Your task to perform on an android device: Find coffee shops on Maps Image 0: 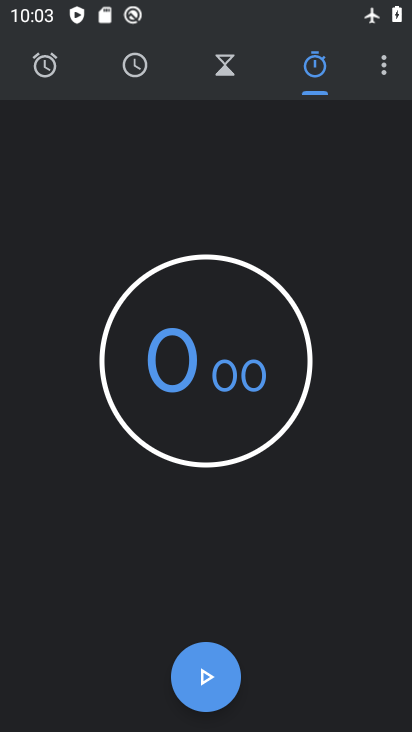
Step 0: press back button
Your task to perform on an android device: Find coffee shops on Maps Image 1: 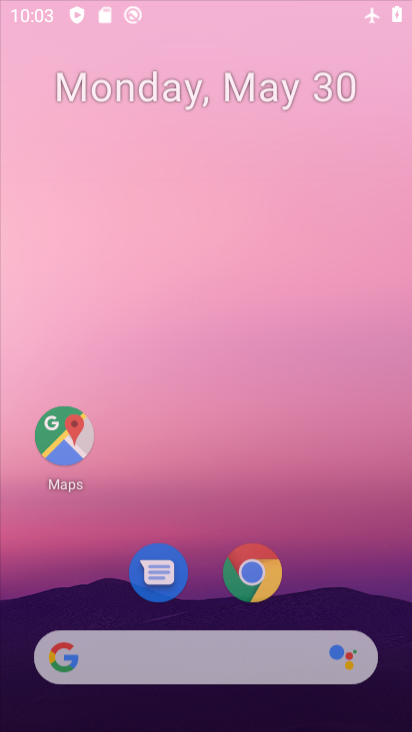
Step 1: press back button
Your task to perform on an android device: Find coffee shops on Maps Image 2: 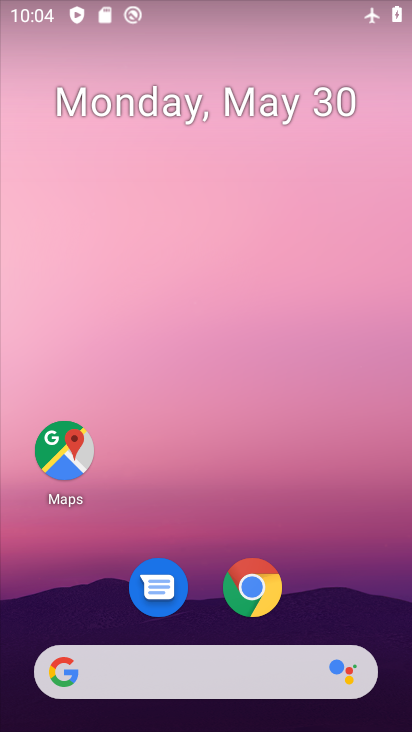
Step 2: drag from (336, 589) to (307, 19)
Your task to perform on an android device: Find coffee shops on Maps Image 3: 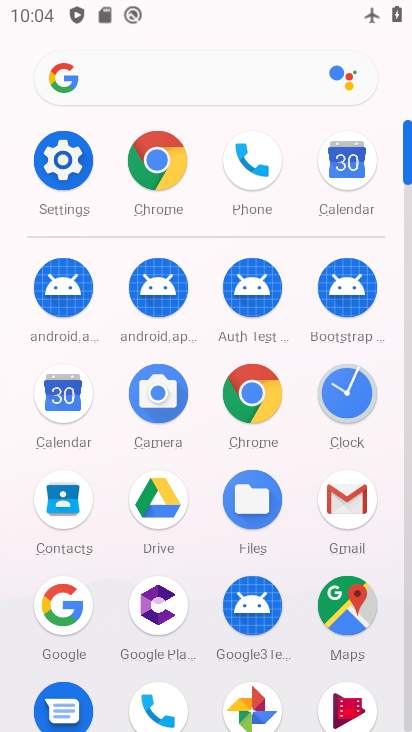
Step 3: drag from (5, 581) to (8, 263)
Your task to perform on an android device: Find coffee shops on Maps Image 4: 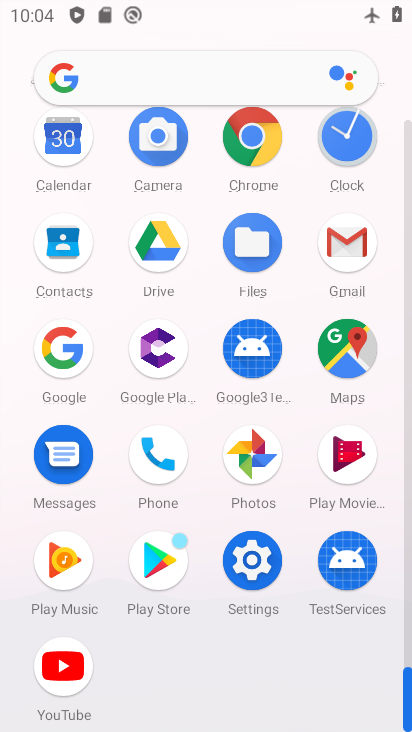
Step 4: click (336, 336)
Your task to perform on an android device: Find coffee shops on Maps Image 5: 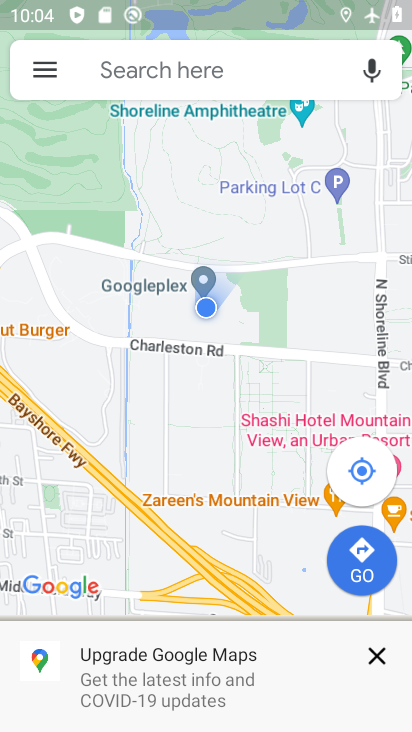
Step 5: click (228, 68)
Your task to perform on an android device: Find coffee shops on Maps Image 6: 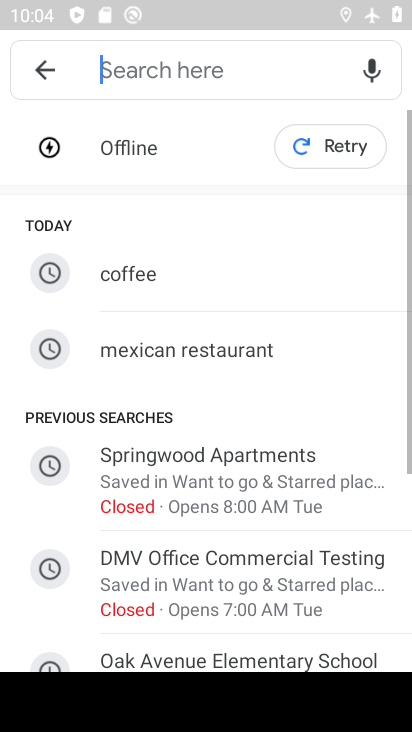
Step 6: click (172, 269)
Your task to perform on an android device: Find coffee shops on Maps Image 7: 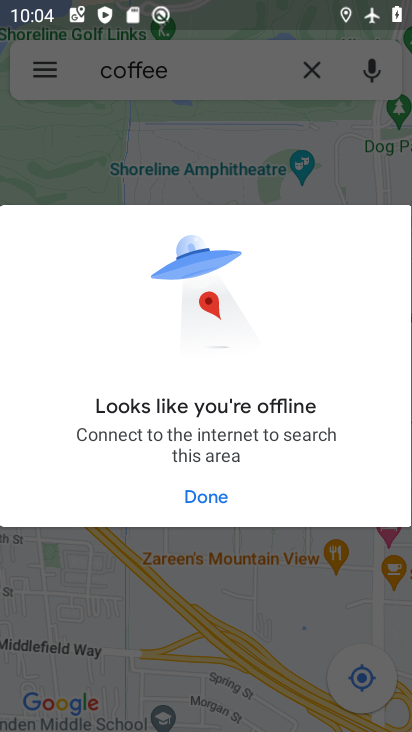
Step 7: task complete